Your task to perform on an android device: turn on javascript in the chrome app Image 0: 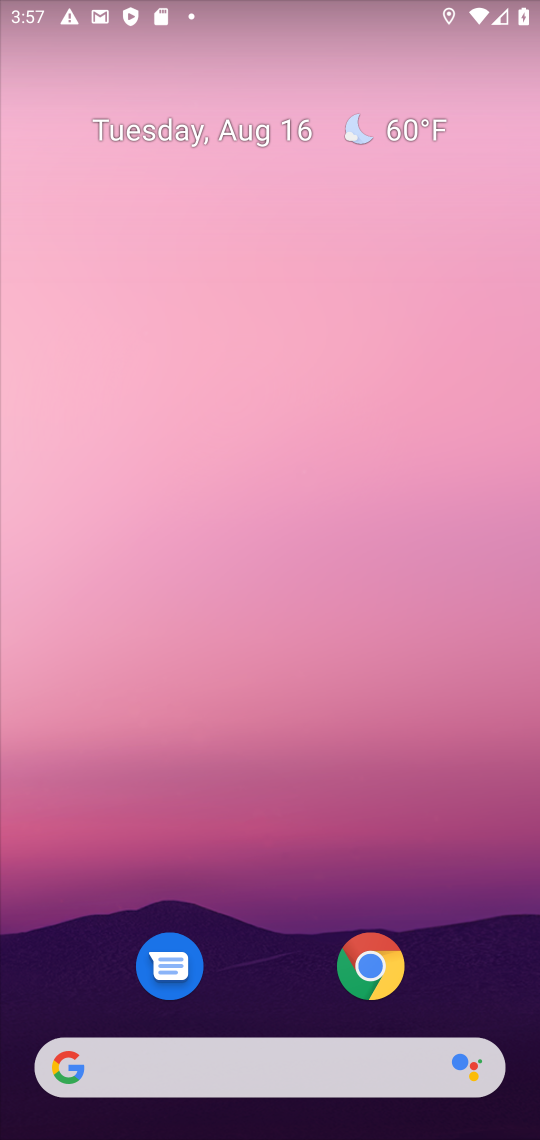
Step 0: click (383, 945)
Your task to perform on an android device: turn on javascript in the chrome app Image 1: 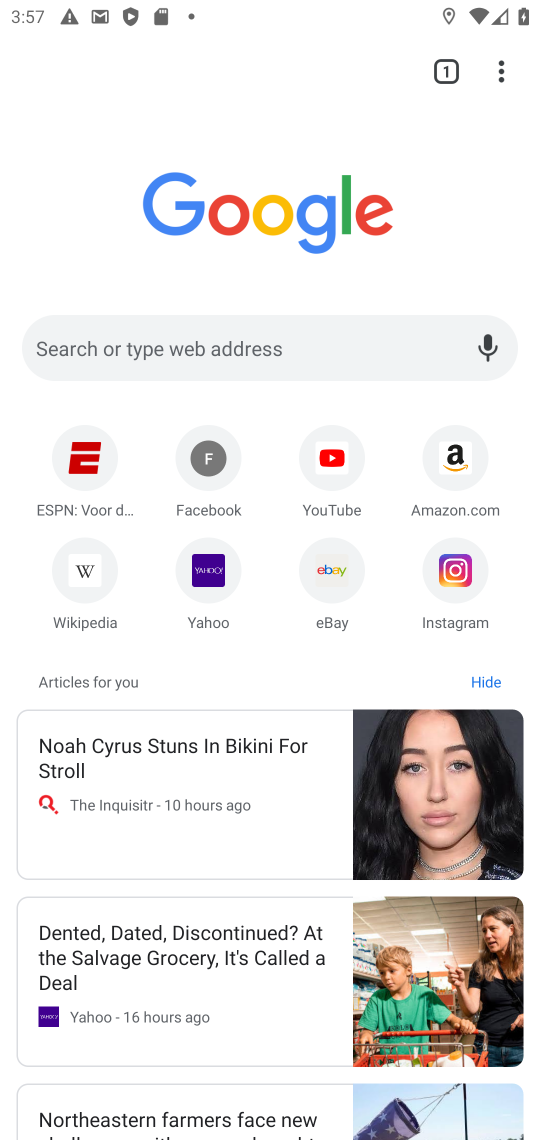
Step 1: click (502, 66)
Your task to perform on an android device: turn on javascript in the chrome app Image 2: 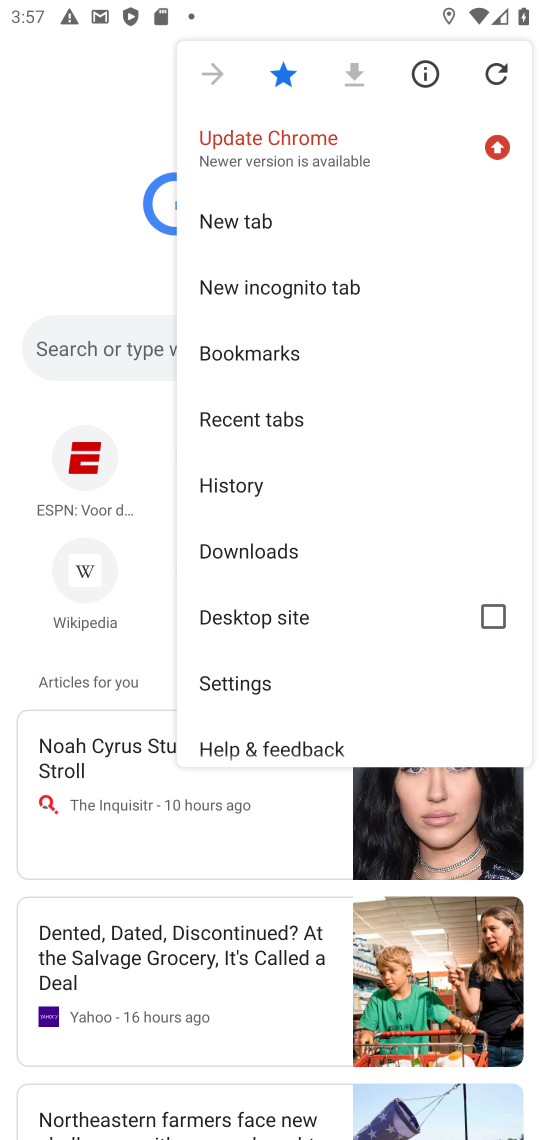
Step 2: click (237, 688)
Your task to perform on an android device: turn on javascript in the chrome app Image 3: 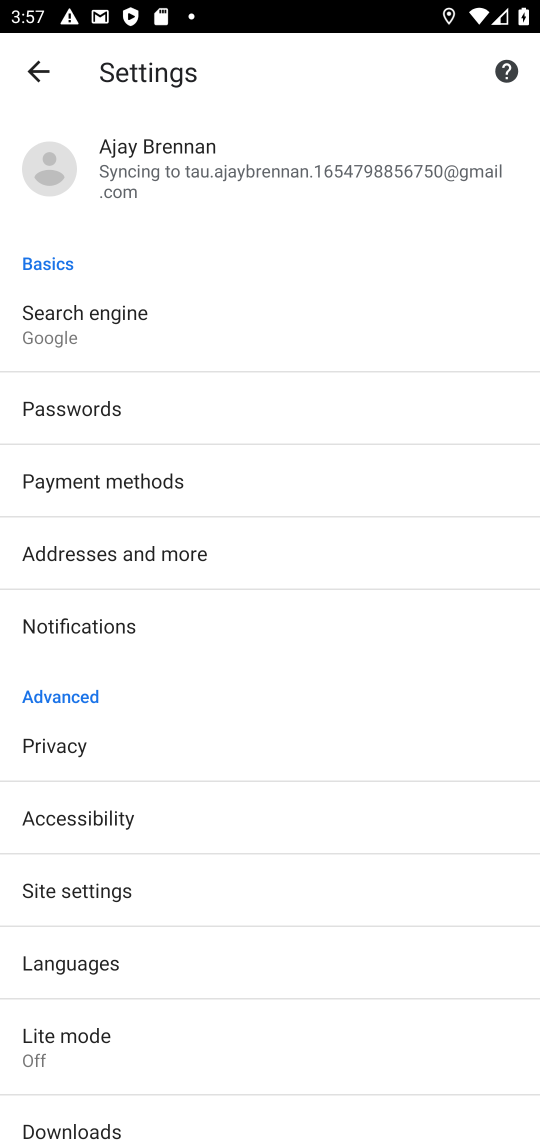
Step 3: click (61, 880)
Your task to perform on an android device: turn on javascript in the chrome app Image 4: 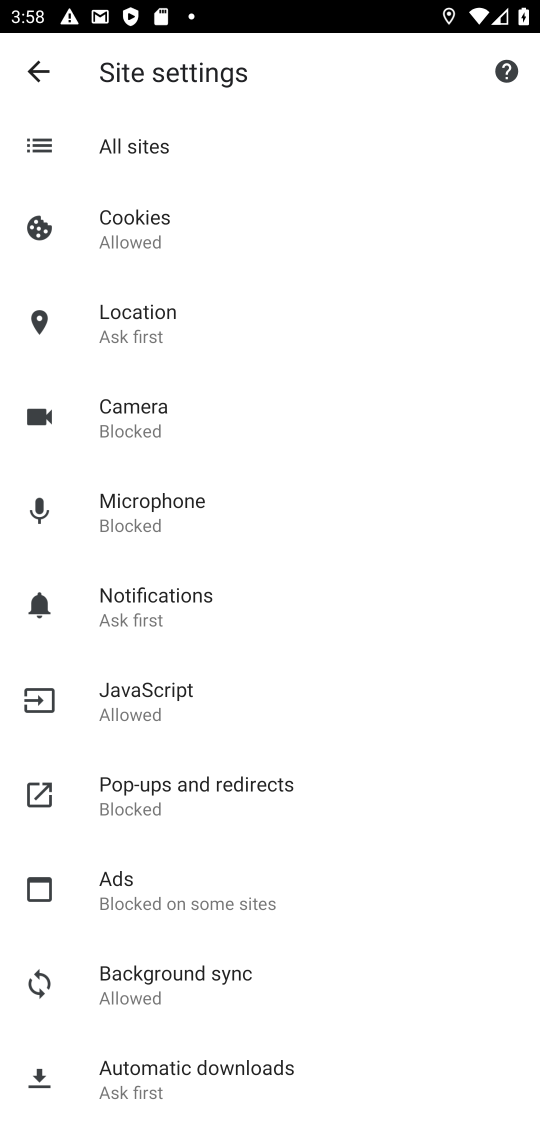
Step 4: click (169, 696)
Your task to perform on an android device: turn on javascript in the chrome app Image 5: 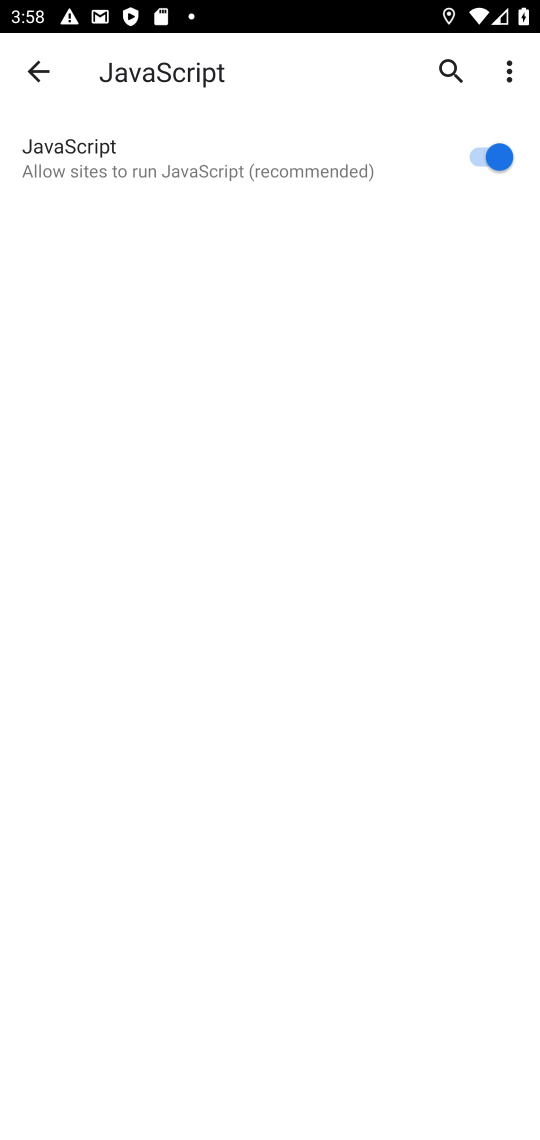
Step 5: task complete